Your task to perform on an android device: show emergency info Image 0: 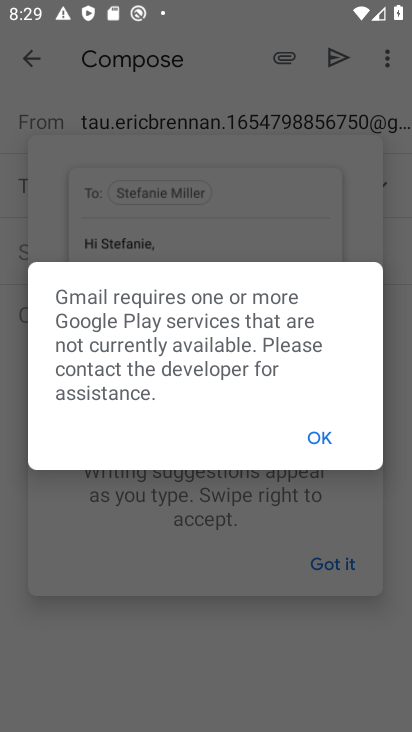
Step 0: click (318, 441)
Your task to perform on an android device: show emergency info Image 1: 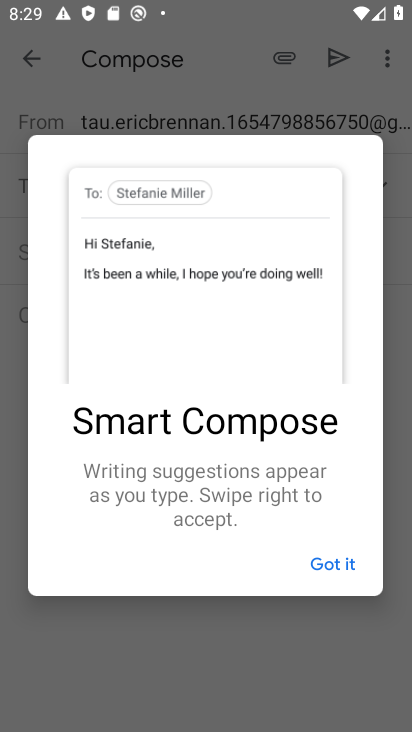
Step 1: click (325, 566)
Your task to perform on an android device: show emergency info Image 2: 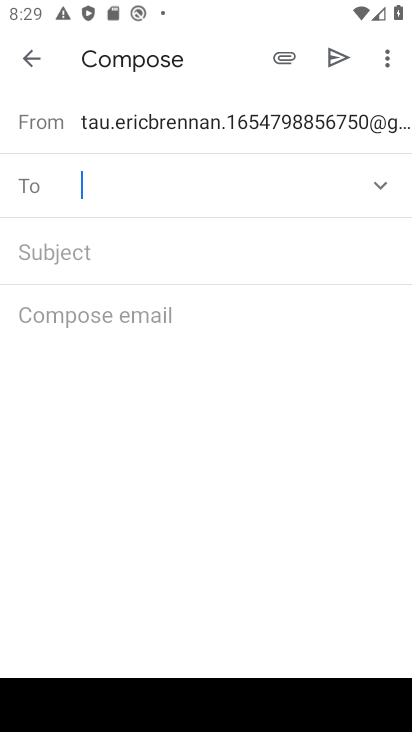
Step 2: press home button
Your task to perform on an android device: show emergency info Image 3: 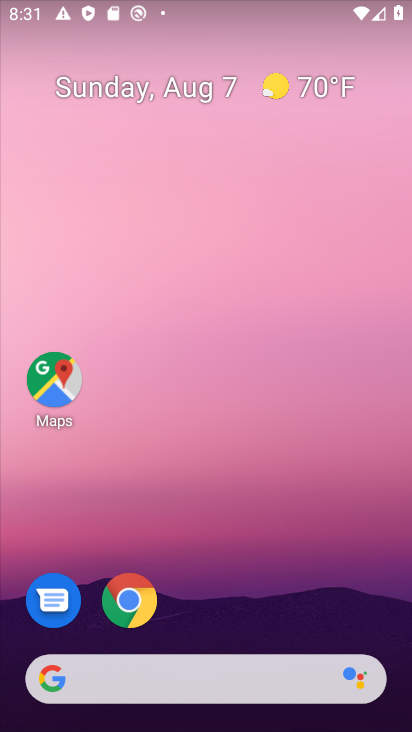
Step 3: drag from (232, 302) to (316, 18)
Your task to perform on an android device: show emergency info Image 4: 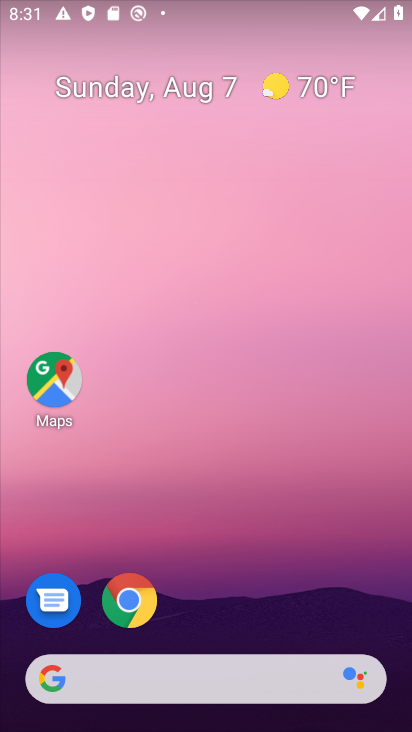
Step 4: drag from (243, 582) to (267, 130)
Your task to perform on an android device: show emergency info Image 5: 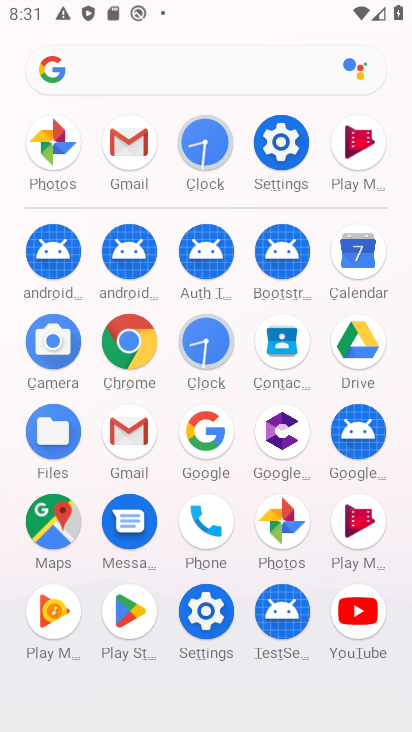
Step 5: click (281, 147)
Your task to perform on an android device: show emergency info Image 6: 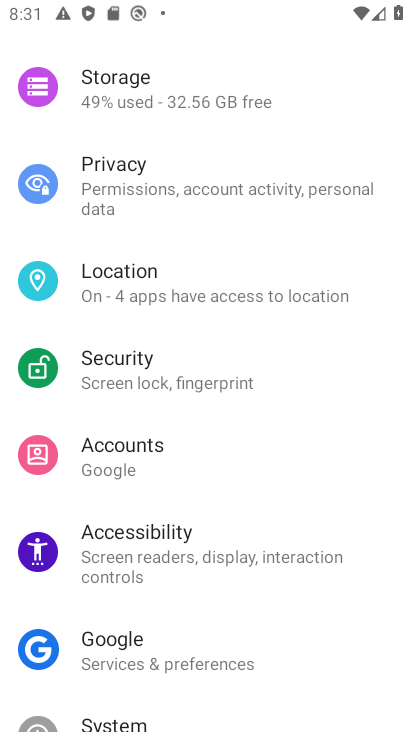
Step 6: drag from (128, 556) to (189, 268)
Your task to perform on an android device: show emergency info Image 7: 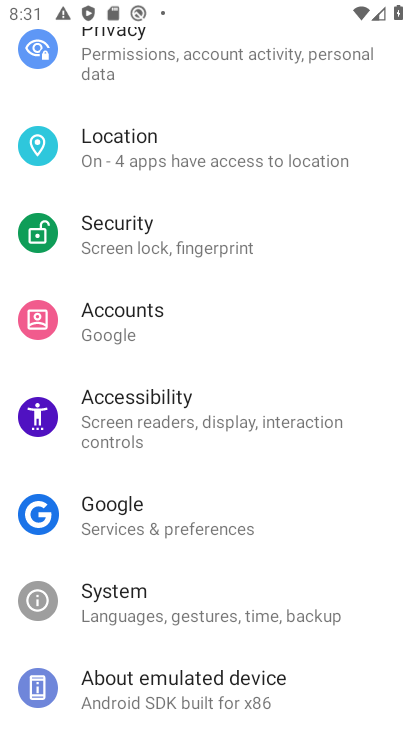
Step 7: click (177, 702)
Your task to perform on an android device: show emergency info Image 8: 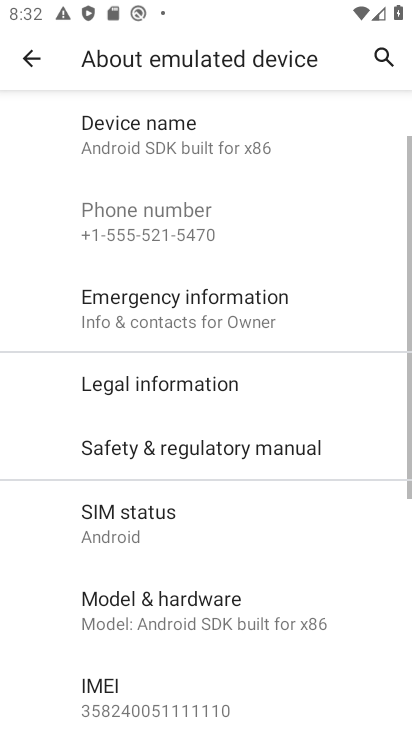
Step 8: click (161, 309)
Your task to perform on an android device: show emergency info Image 9: 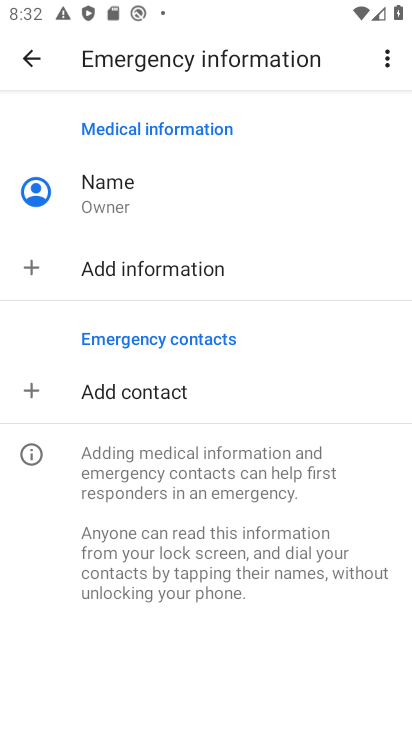
Step 9: task complete